Your task to perform on an android device: choose inbox layout in the gmail app Image 0: 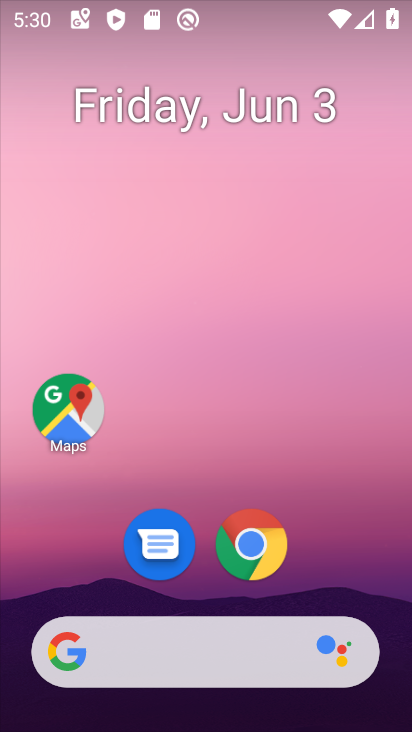
Step 0: drag from (328, 568) to (311, 69)
Your task to perform on an android device: choose inbox layout in the gmail app Image 1: 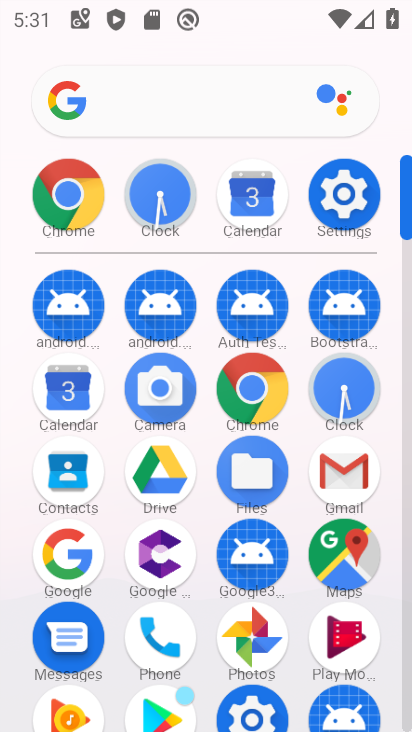
Step 1: click (358, 475)
Your task to perform on an android device: choose inbox layout in the gmail app Image 2: 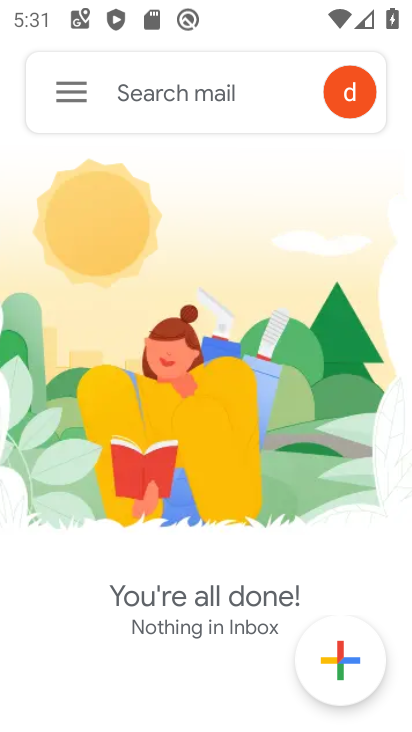
Step 2: click (81, 95)
Your task to perform on an android device: choose inbox layout in the gmail app Image 3: 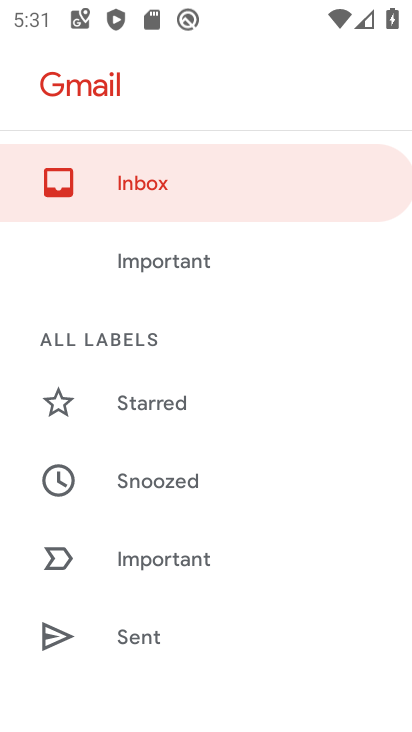
Step 3: drag from (278, 623) to (282, 213)
Your task to perform on an android device: choose inbox layout in the gmail app Image 4: 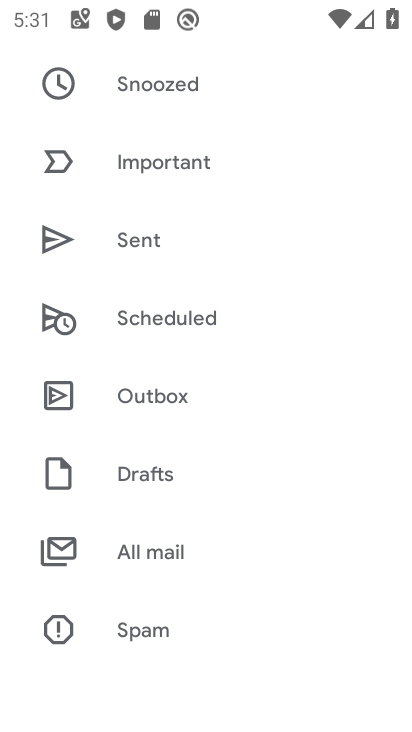
Step 4: drag from (217, 586) to (201, 119)
Your task to perform on an android device: choose inbox layout in the gmail app Image 5: 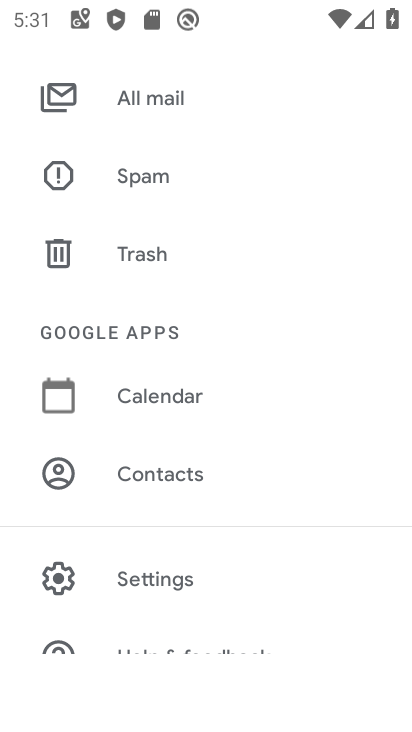
Step 5: click (134, 580)
Your task to perform on an android device: choose inbox layout in the gmail app Image 6: 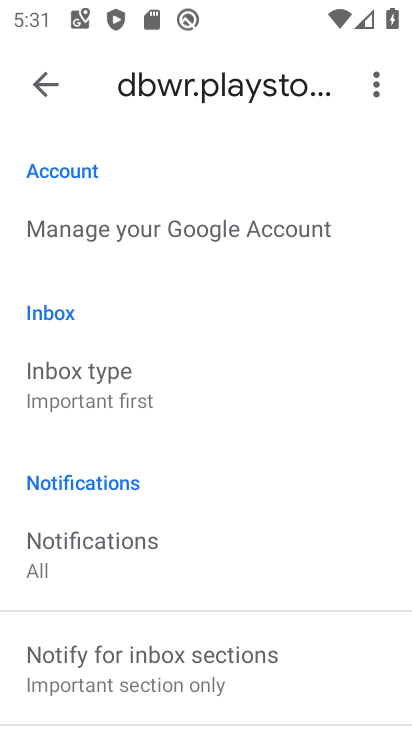
Step 6: click (52, 375)
Your task to perform on an android device: choose inbox layout in the gmail app Image 7: 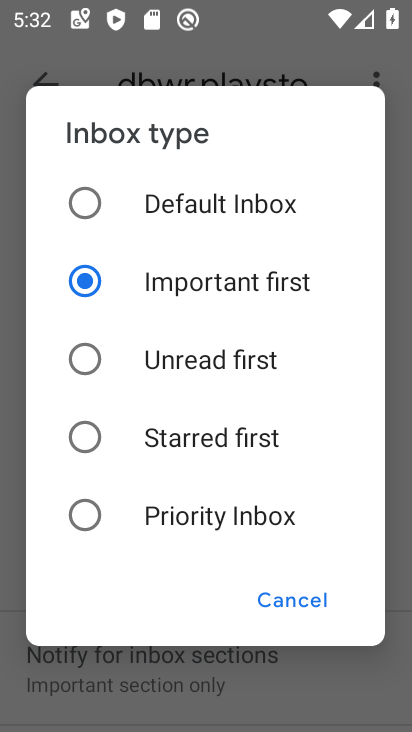
Step 7: click (175, 511)
Your task to perform on an android device: choose inbox layout in the gmail app Image 8: 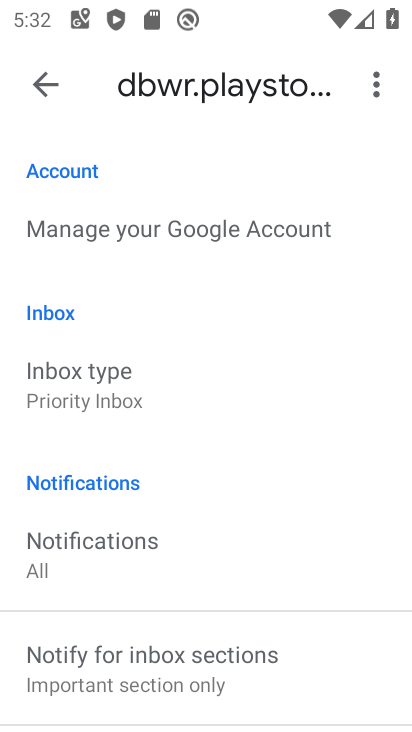
Step 8: task complete